Your task to perform on an android device: Go to Amazon Image 0: 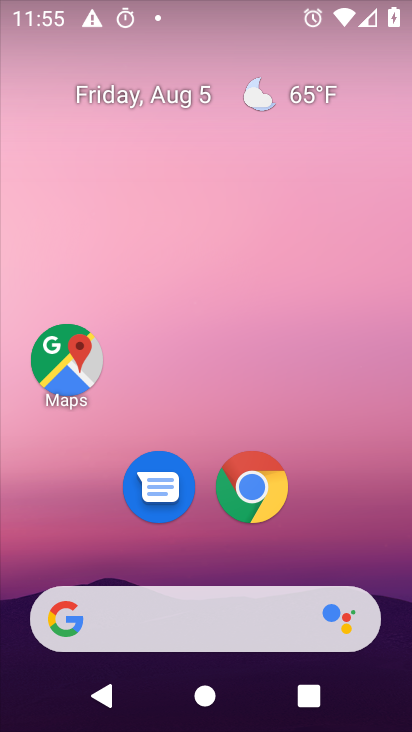
Step 0: click (269, 490)
Your task to perform on an android device: Go to Amazon Image 1: 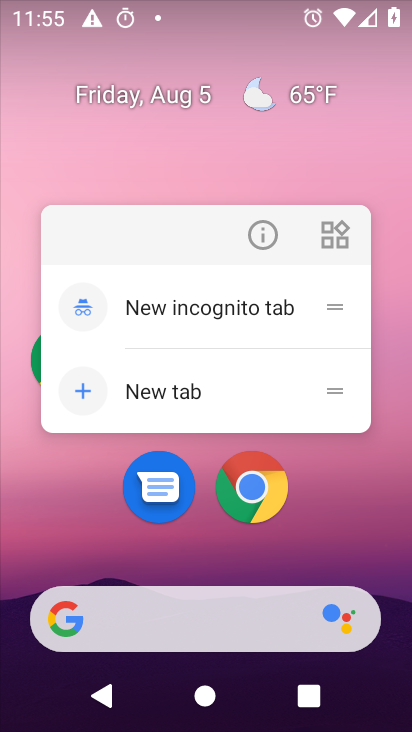
Step 1: click (251, 482)
Your task to perform on an android device: Go to Amazon Image 2: 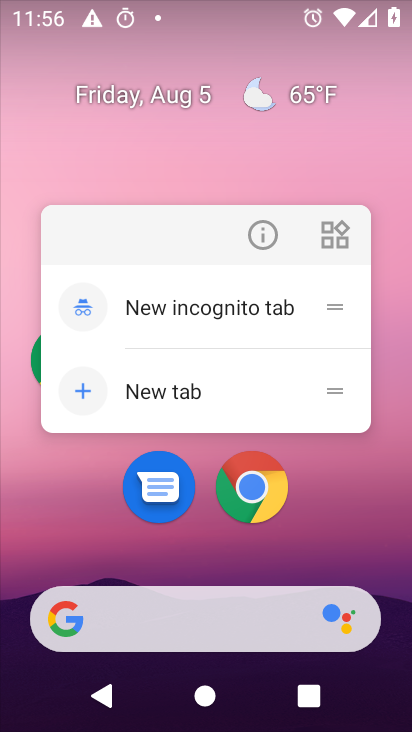
Step 2: click (274, 478)
Your task to perform on an android device: Go to Amazon Image 3: 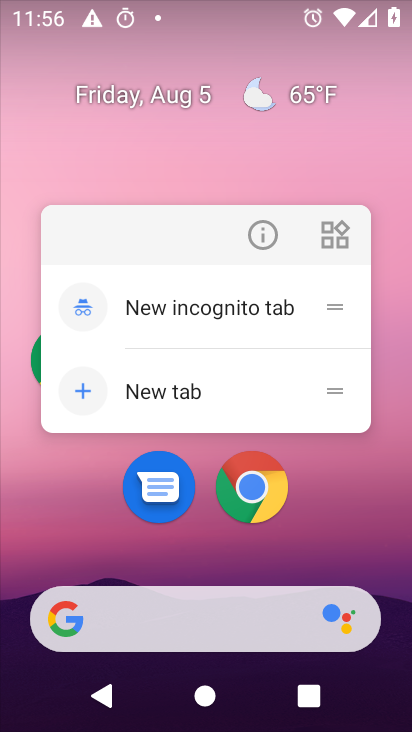
Step 3: click (265, 490)
Your task to perform on an android device: Go to Amazon Image 4: 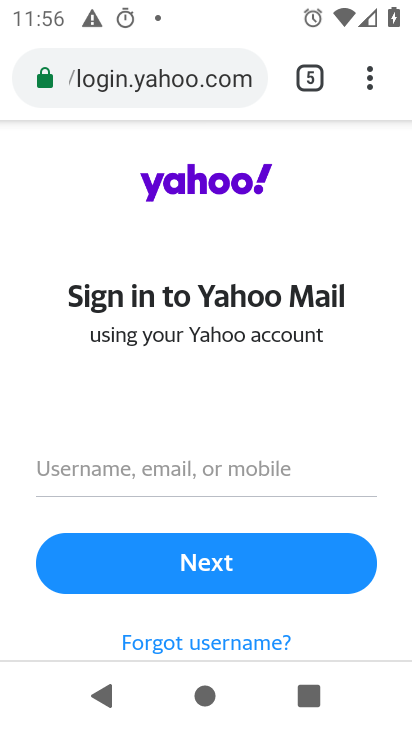
Step 4: click (327, 77)
Your task to perform on an android device: Go to Amazon Image 5: 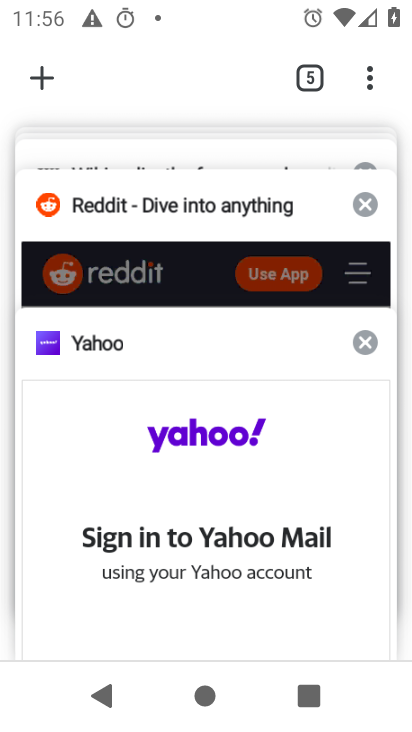
Step 5: click (39, 77)
Your task to perform on an android device: Go to Amazon Image 6: 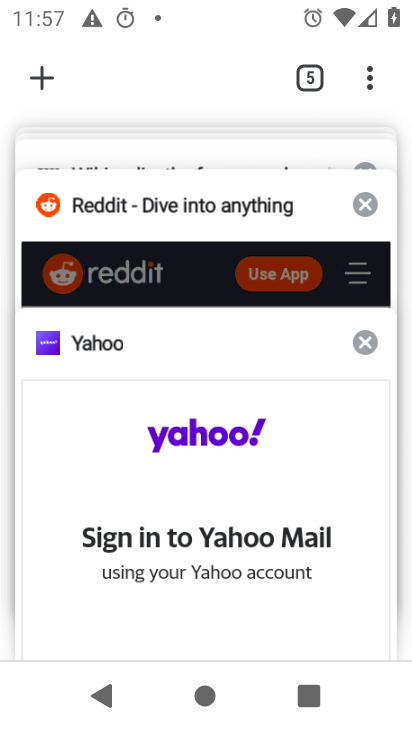
Step 6: click (39, 55)
Your task to perform on an android device: Go to Amazon Image 7: 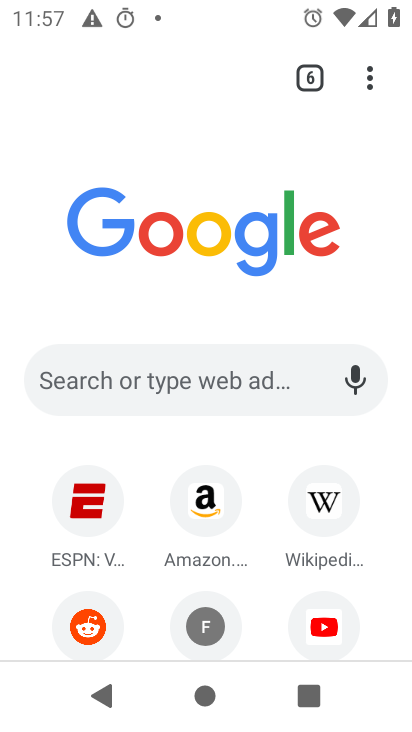
Step 7: click (198, 499)
Your task to perform on an android device: Go to Amazon Image 8: 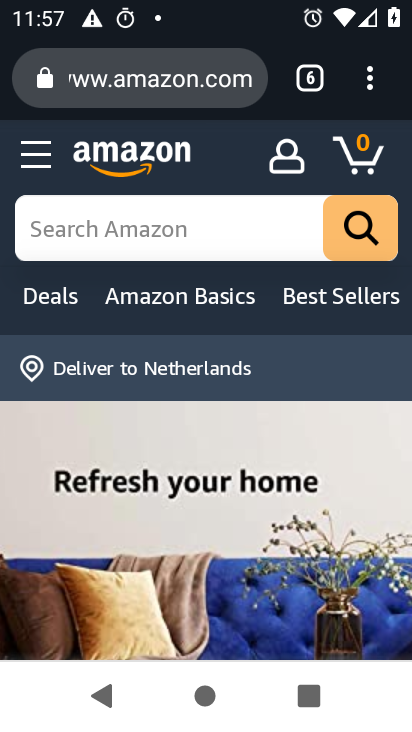
Step 8: task complete